Your task to perform on an android device: Open Google Maps and go to "Timeline" Image 0: 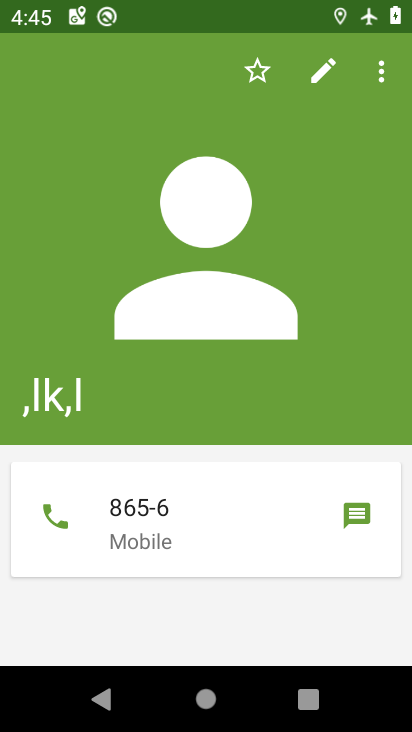
Step 0: press home button
Your task to perform on an android device: Open Google Maps and go to "Timeline" Image 1: 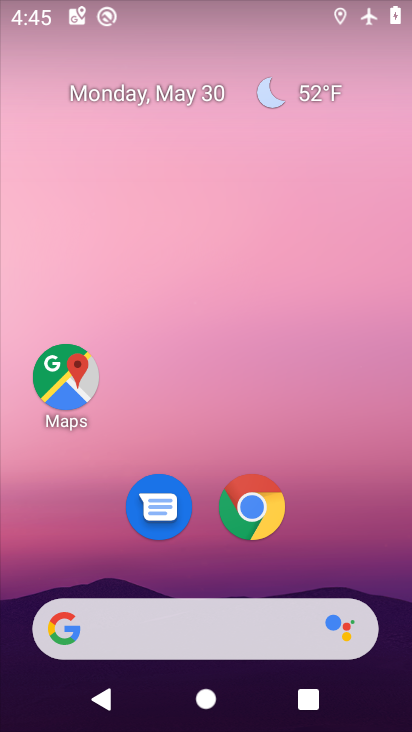
Step 1: click (53, 413)
Your task to perform on an android device: Open Google Maps and go to "Timeline" Image 2: 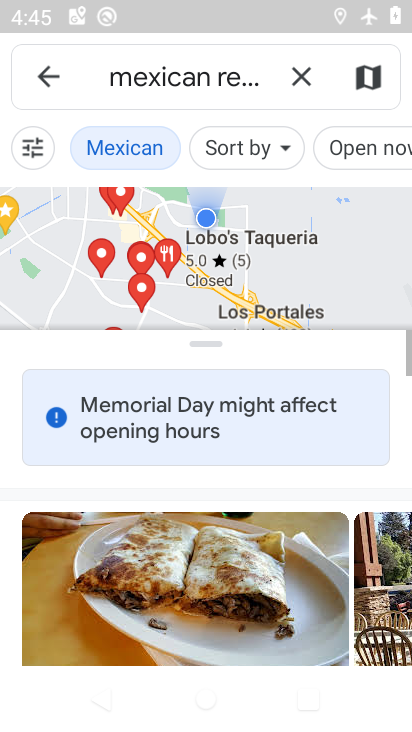
Step 2: click (61, 87)
Your task to perform on an android device: Open Google Maps and go to "Timeline" Image 3: 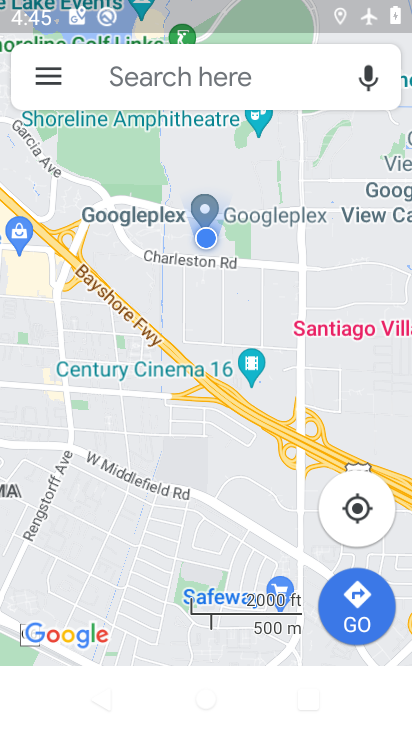
Step 3: click (61, 87)
Your task to perform on an android device: Open Google Maps and go to "Timeline" Image 4: 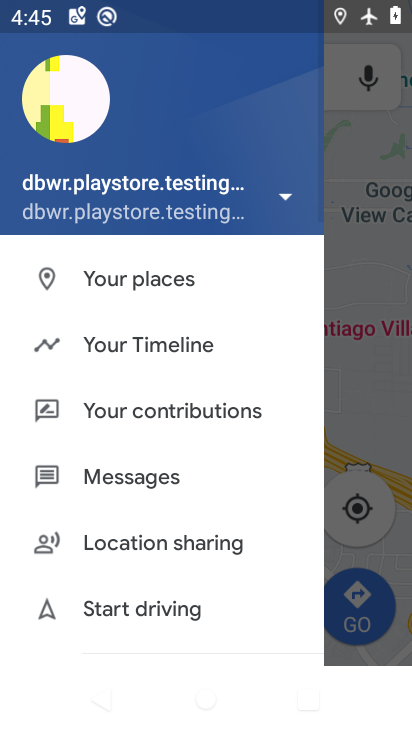
Step 4: click (108, 358)
Your task to perform on an android device: Open Google Maps and go to "Timeline" Image 5: 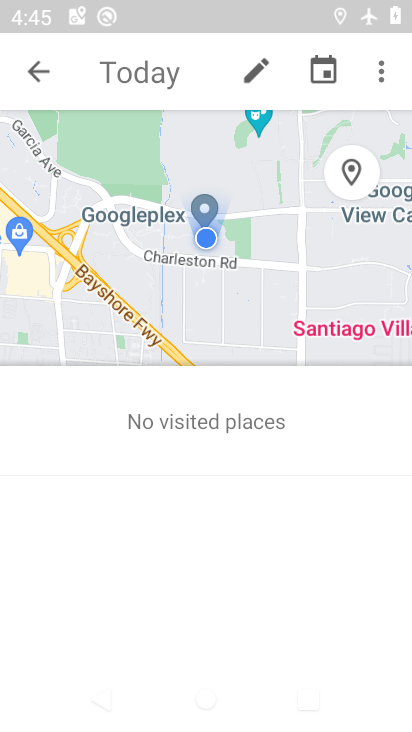
Step 5: task complete